Your task to perform on an android device: turn on translation in the chrome app Image 0: 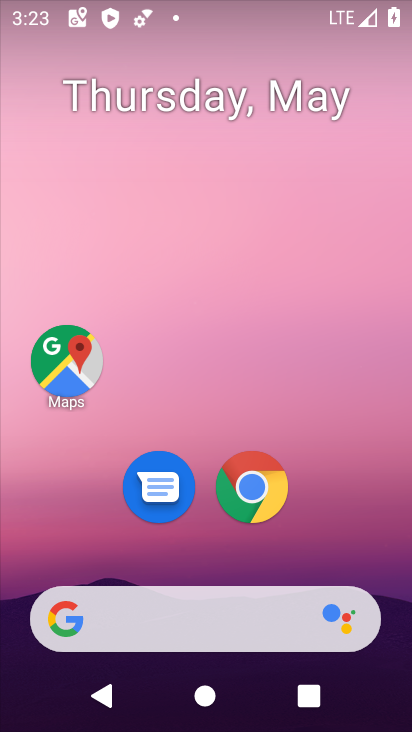
Step 0: drag from (212, 594) to (287, 184)
Your task to perform on an android device: turn on translation in the chrome app Image 1: 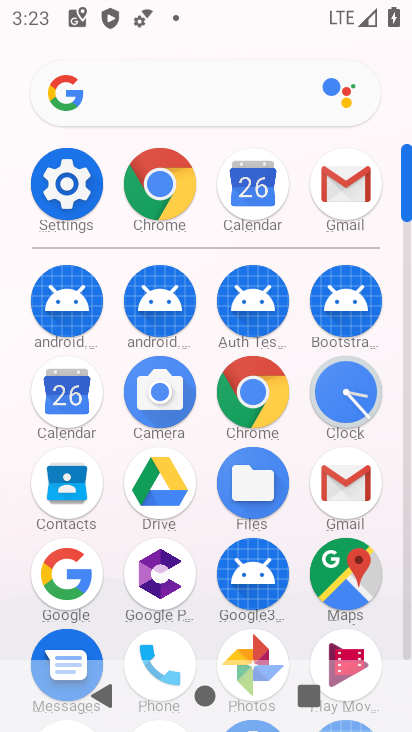
Step 1: click (273, 392)
Your task to perform on an android device: turn on translation in the chrome app Image 2: 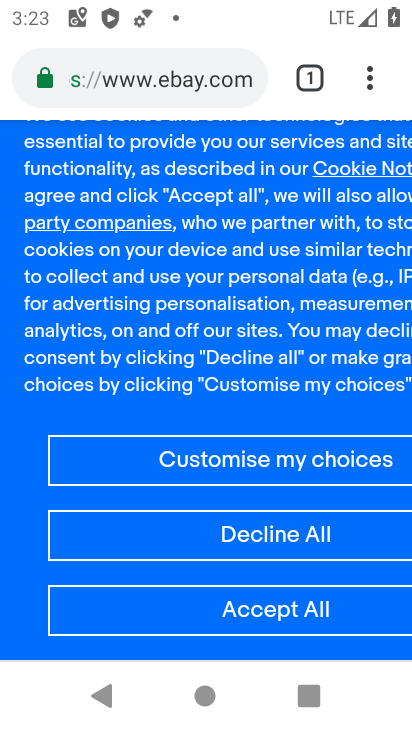
Step 2: click (366, 84)
Your task to perform on an android device: turn on translation in the chrome app Image 3: 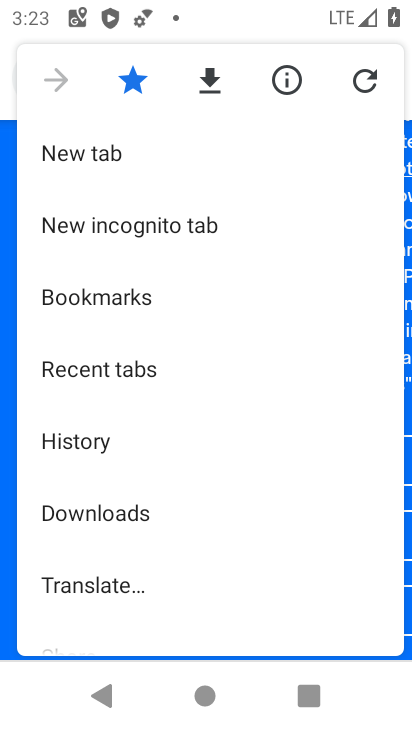
Step 3: drag from (217, 458) to (256, 231)
Your task to perform on an android device: turn on translation in the chrome app Image 4: 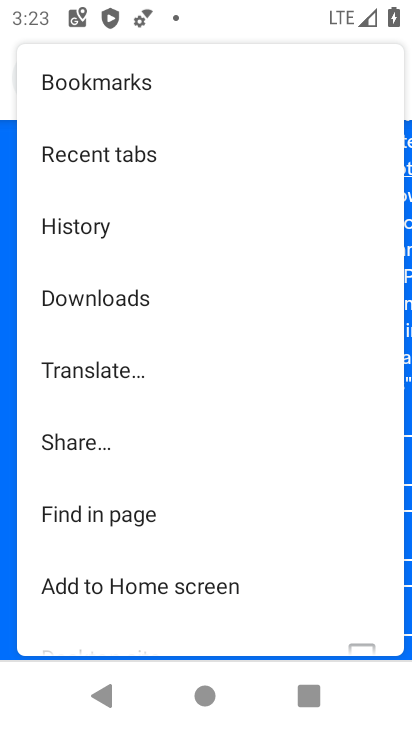
Step 4: click (127, 375)
Your task to perform on an android device: turn on translation in the chrome app Image 5: 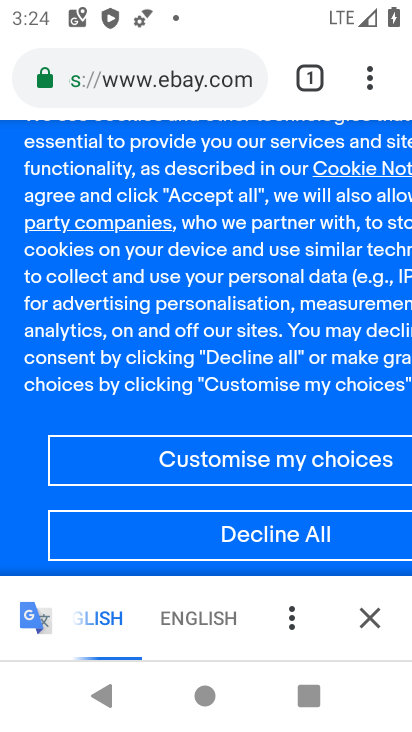
Step 5: click (305, 629)
Your task to perform on an android device: turn on translation in the chrome app Image 6: 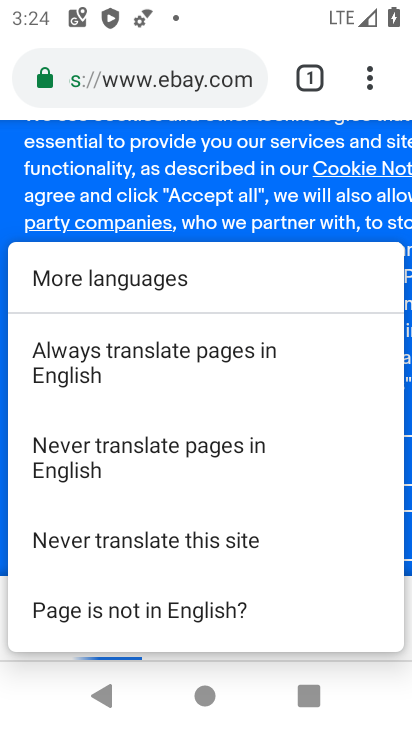
Step 6: click (276, 386)
Your task to perform on an android device: turn on translation in the chrome app Image 7: 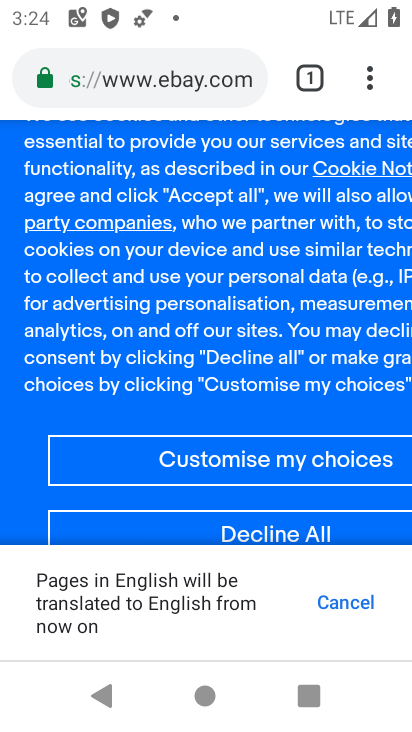
Step 7: task complete